Your task to perform on an android device: Open the calendar and show me this week's events? Image 0: 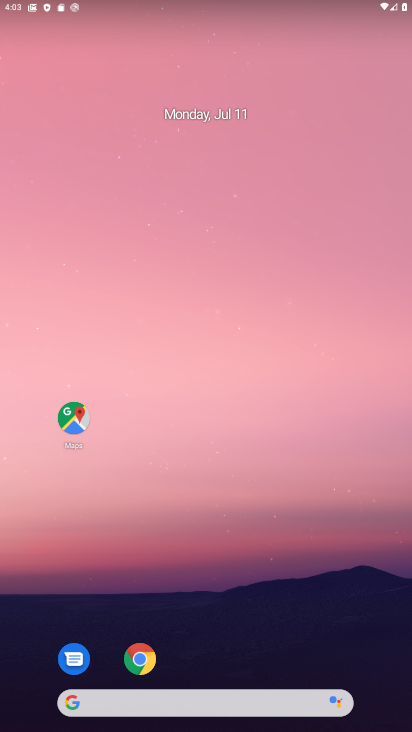
Step 0: click (181, 119)
Your task to perform on an android device: Open the calendar and show me this week's events? Image 1: 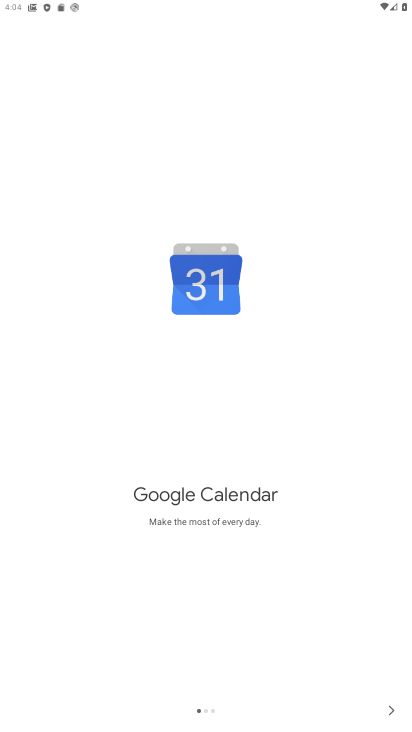
Step 1: click (385, 712)
Your task to perform on an android device: Open the calendar and show me this week's events? Image 2: 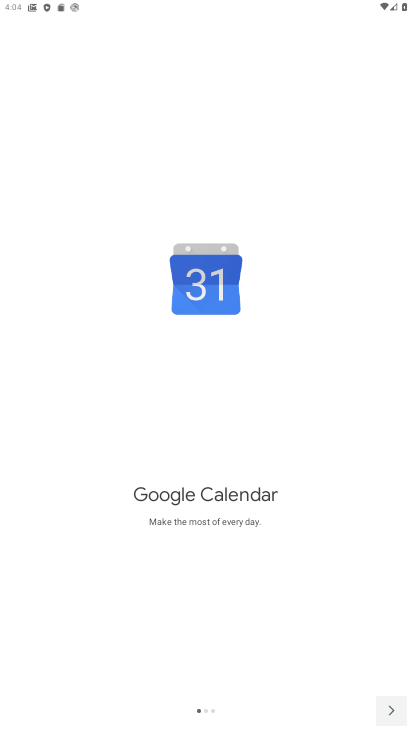
Step 2: click (385, 712)
Your task to perform on an android device: Open the calendar and show me this week's events? Image 3: 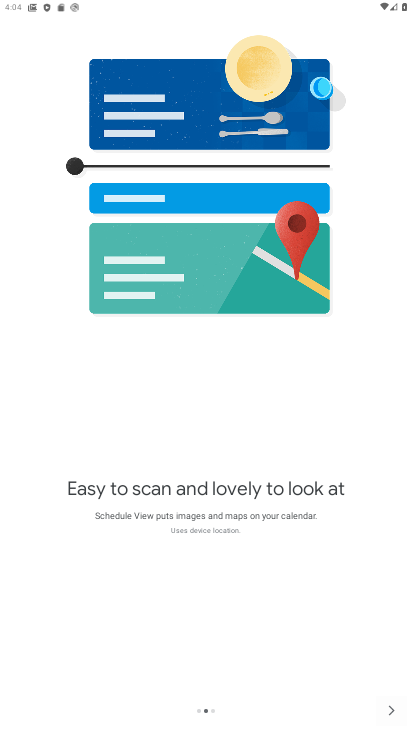
Step 3: click (385, 712)
Your task to perform on an android device: Open the calendar and show me this week's events? Image 4: 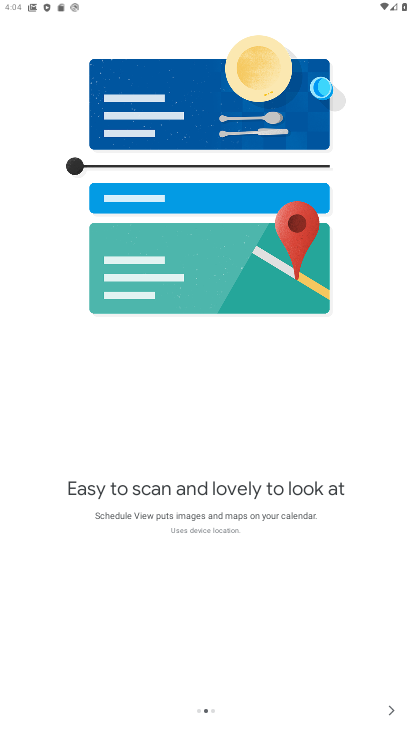
Step 4: click (385, 712)
Your task to perform on an android device: Open the calendar and show me this week's events? Image 5: 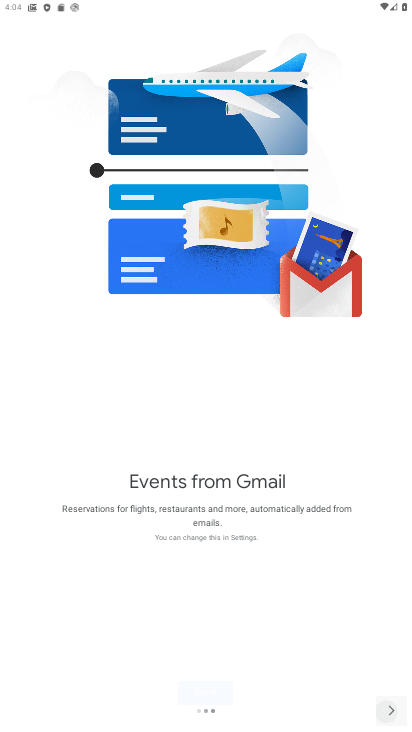
Step 5: click (385, 712)
Your task to perform on an android device: Open the calendar and show me this week's events? Image 6: 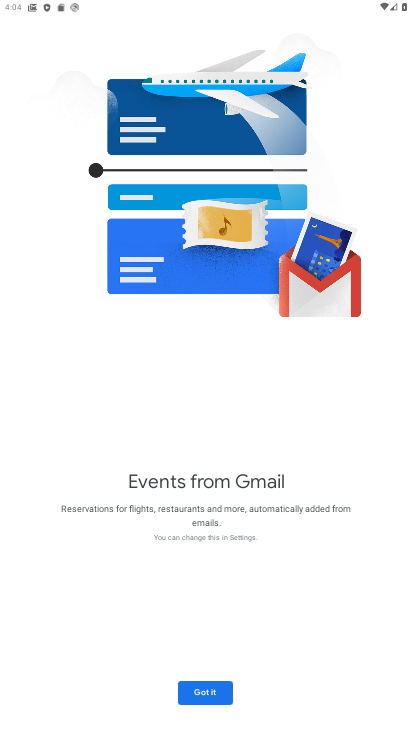
Step 6: click (385, 712)
Your task to perform on an android device: Open the calendar and show me this week's events? Image 7: 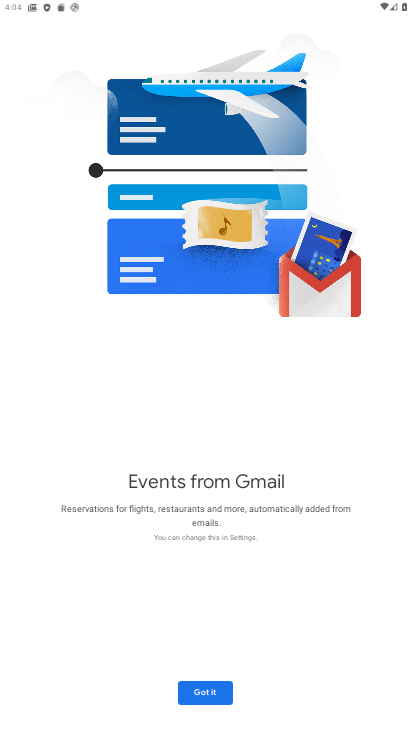
Step 7: click (198, 699)
Your task to perform on an android device: Open the calendar and show me this week's events? Image 8: 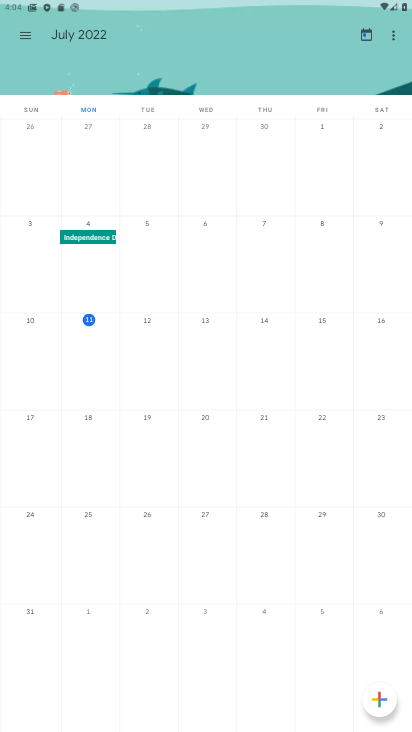
Step 8: click (30, 36)
Your task to perform on an android device: Open the calendar and show me this week's events? Image 9: 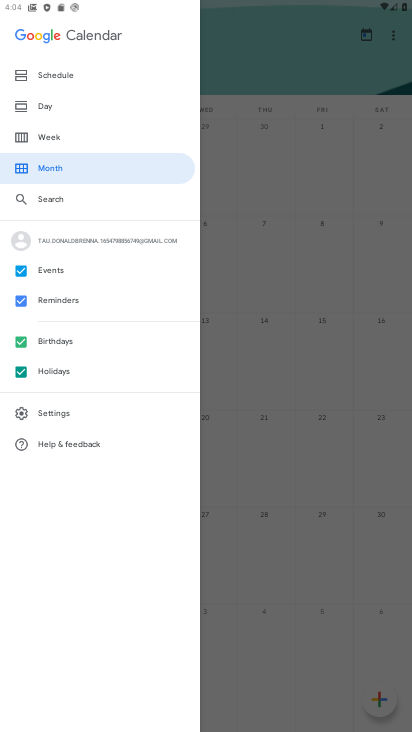
Step 9: click (20, 343)
Your task to perform on an android device: Open the calendar and show me this week's events? Image 10: 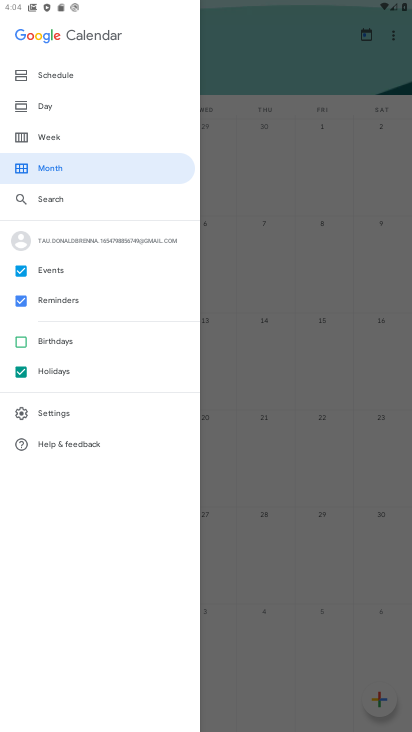
Step 10: click (22, 305)
Your task to perform on an android device: Open the calendar and show me this week's events? Image 11: 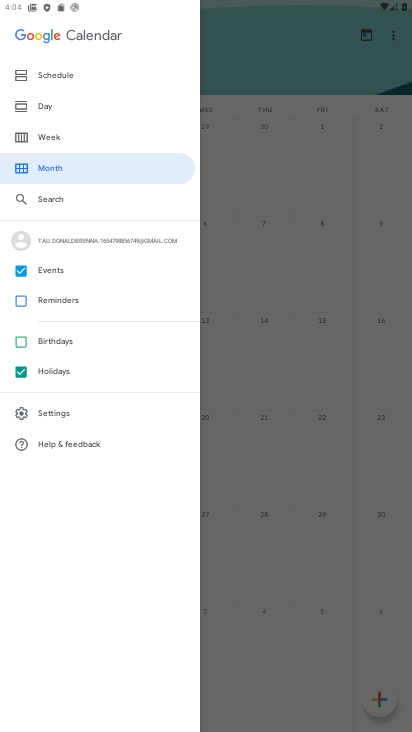
Step 11: click (22, 376)
Your task to perform on an android device: Open the calendar and show me this week's events? Image 12: 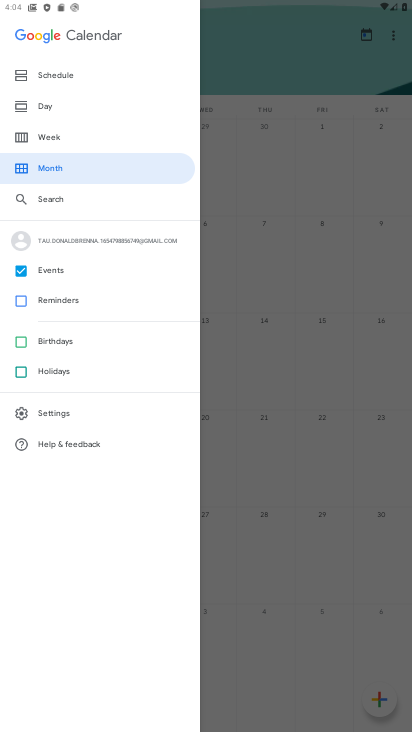
Step 12: click (22, 139)
Your task to perform on an android device: Open the calendar and show me this week's events? Image 13: 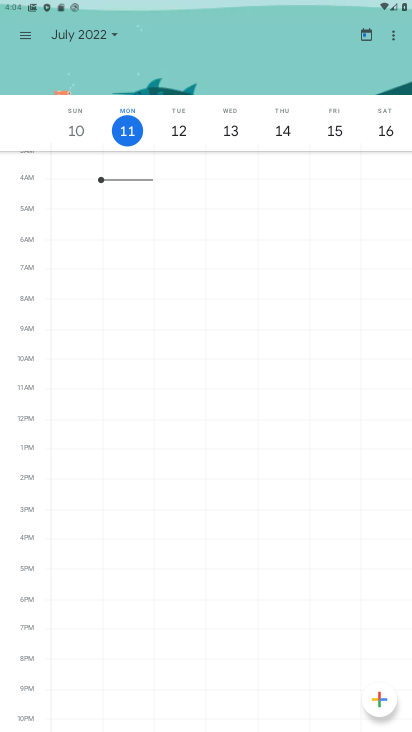
Step 13: task complete